Your task to perform on an android device: turn on bluetooth scan Image 0: 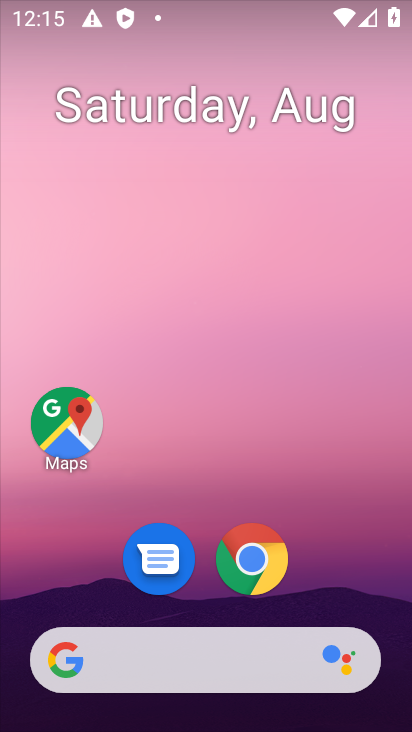
Step 0: drag from (375, 575) to (320, 26)
Your task to perform on an android device: turn on bluetooth scan Image 1: 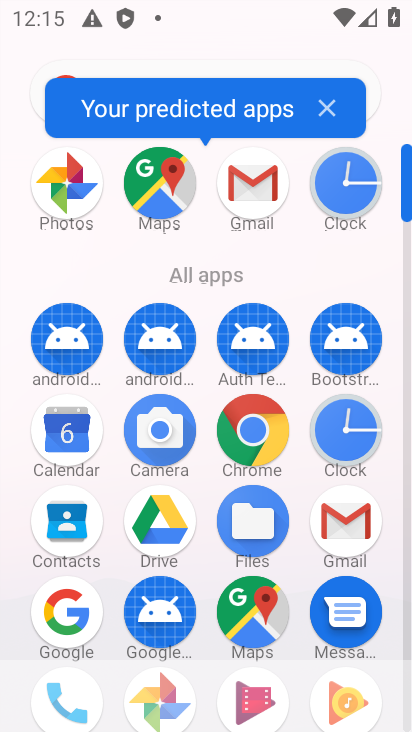
Step 1: click (406, 655)
Your task to perform on an android device: turn on bluetooth scan Image 2: 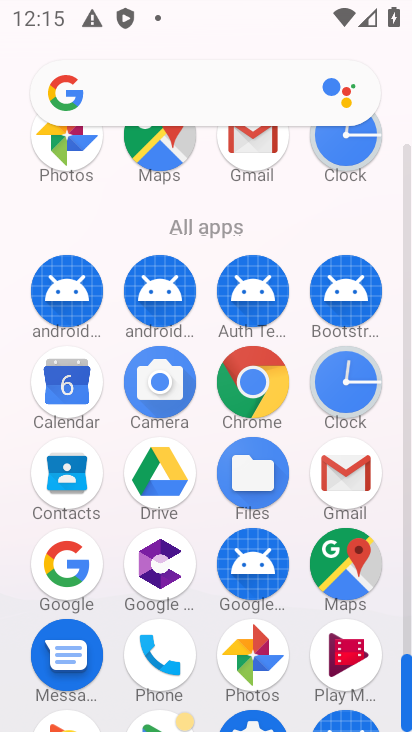
Step 2: drag from (393, 617) to (355, 115)
Your task to perform on an android device: turn on bluetooth scan Image 3: 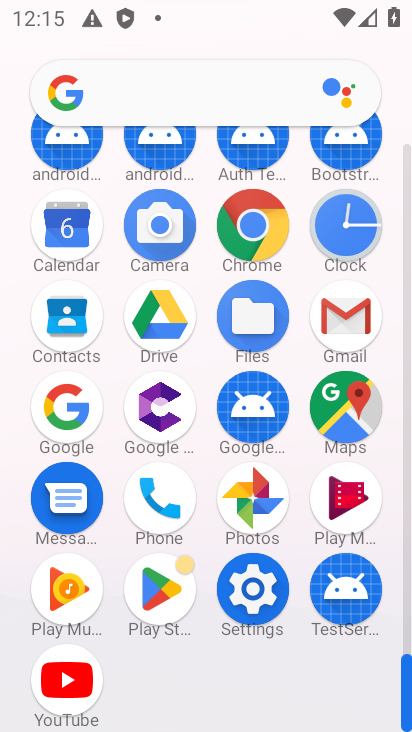
Step 3: click (271, 599)
Your task to perform on an android device: turn on bluetooth scan Image 4: 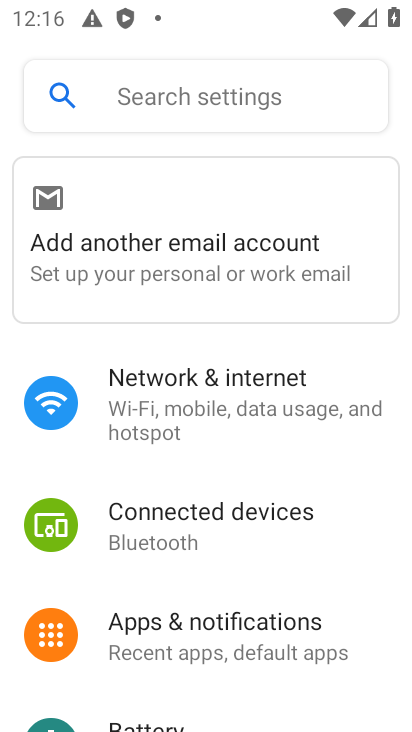
Step 4: drag from (278, 466) to (234, 166)
Your task to perform on an android device: turn on bluetooth scan Image 5: 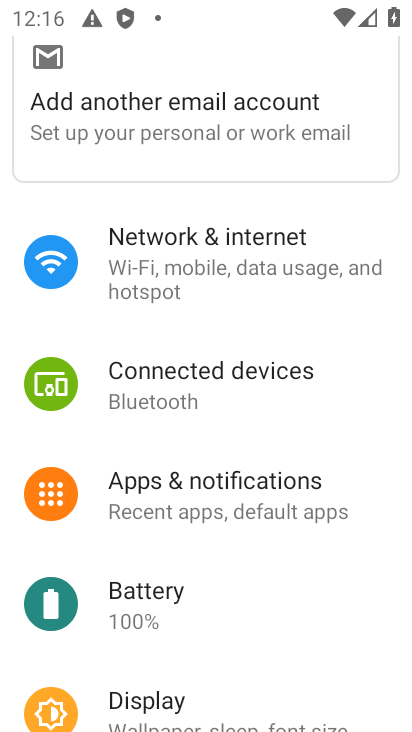
Step 5: drag from (251, 688) to (240, 336)
Your task to perform on an android device: turn on bluetooth scan Image 6: 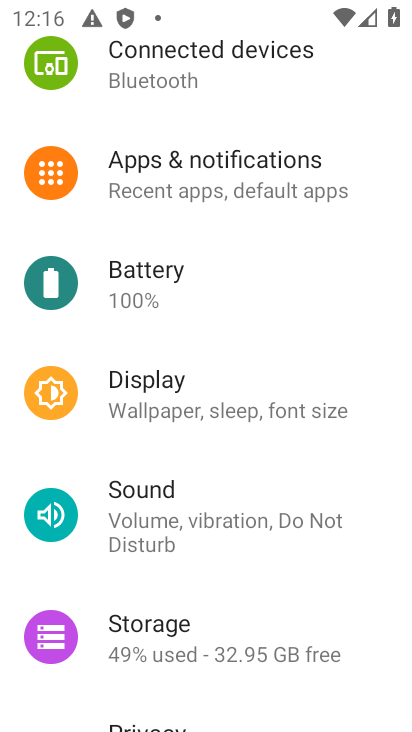
Step 6: drag from (248, 605) to (217, 205)
Your task to perform on an android device: turn on bluetooth scan Image 7: 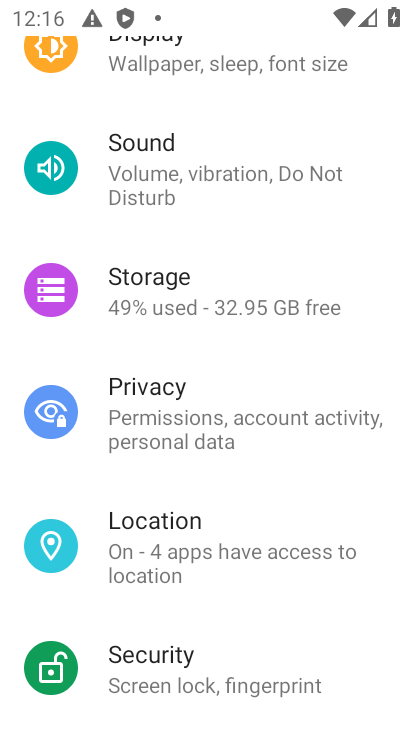
Step 7: click (222, 523)
Your task to perform on an android device: turn on bluetooth scan Image 8: 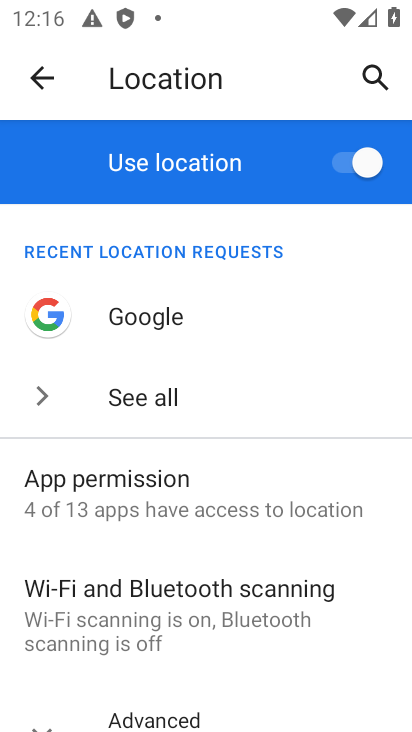
Step 8: click (267, 614)
Your task to perform on an android device: turn on bluetooth scan Image 9: 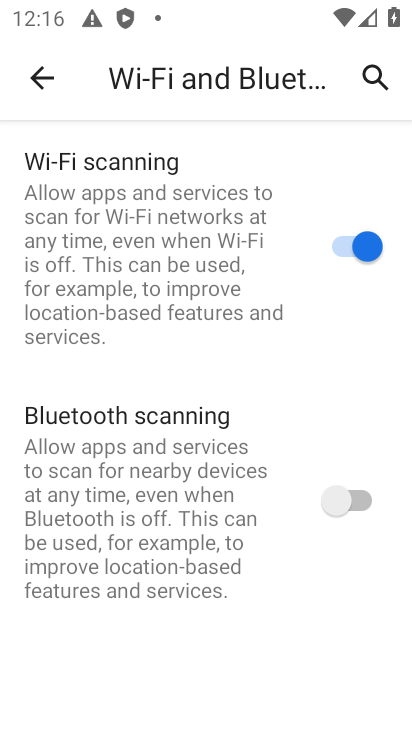
Step 9: click (364, 510)
Your task to perform on an android device: turn on bluetooth scan Image 10: 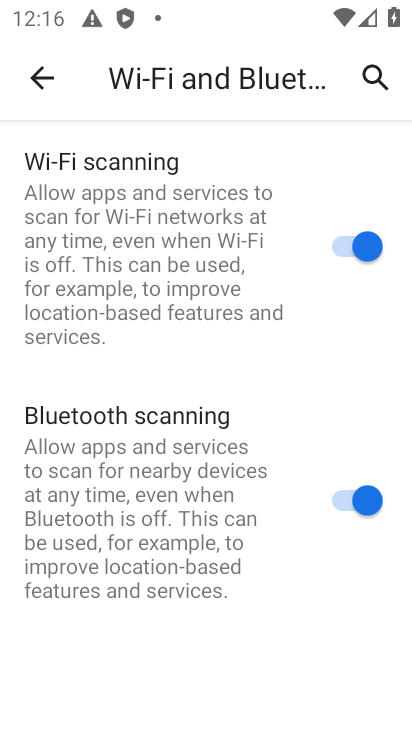
Step 10: task complete